Your task to perform on an android device: Open the web browser Image 0: 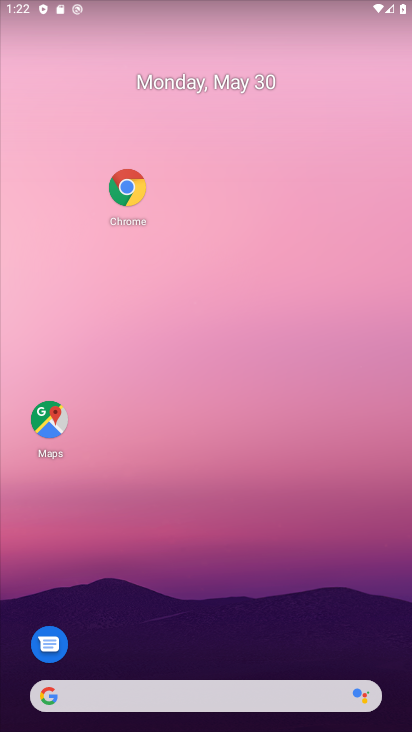
Step 0: click (124, 698)
Your task to perform on an android device: Open the web browser Image 1: 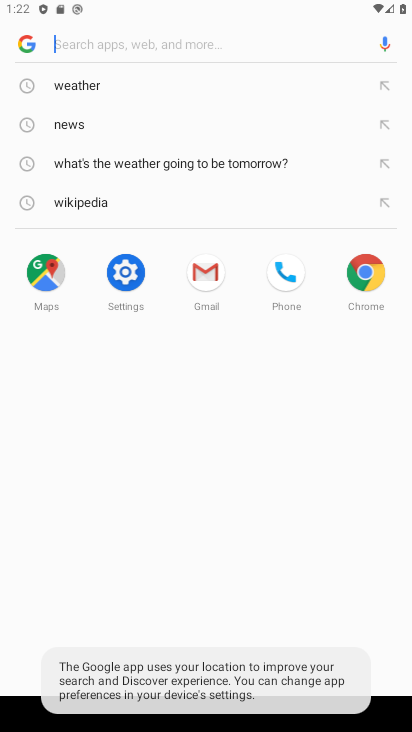
Step 1: task complete